Your task to perform on an android device: open chrome and create a bookmark for the current page Image 0: 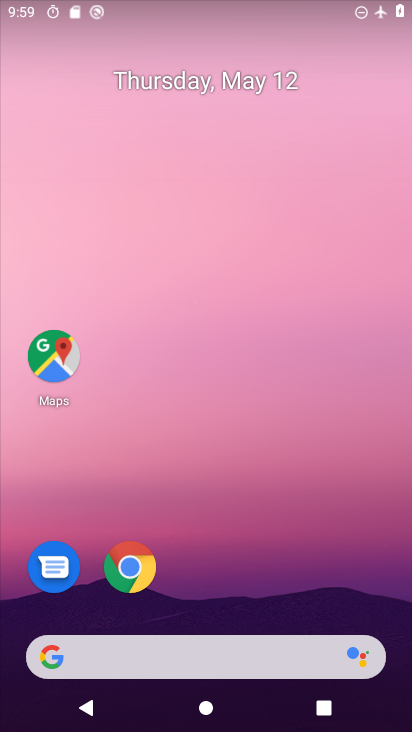
Step 0: drag from (224, 614) to (365, 22)
Your task to perform on an android device: open chrome and create a bookmark for the current page Image 1: 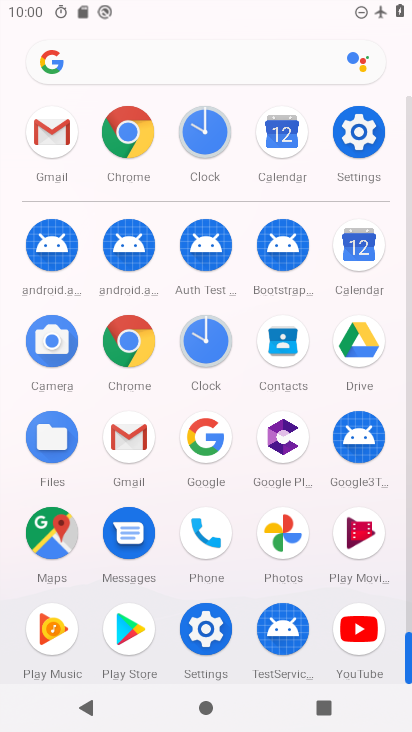
Step 1: click (273, 450)
Your task to perform on an android device: open chrome and create a bookmark for the current page Image 2: 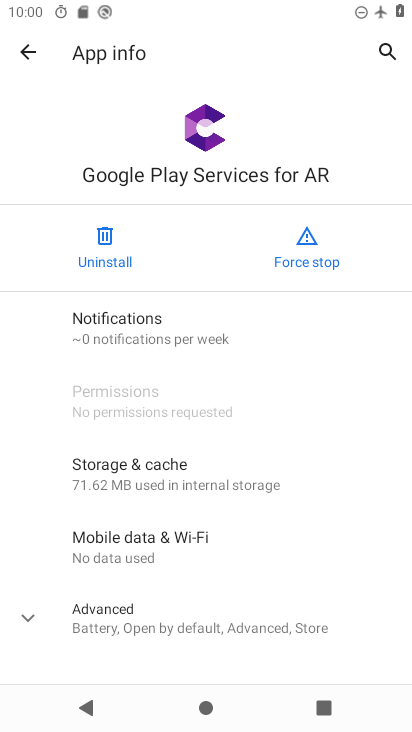
Step 2: click (52, 56)
Your task to perform on an android device: open chrome and create a bookmark for the current page Image 3: 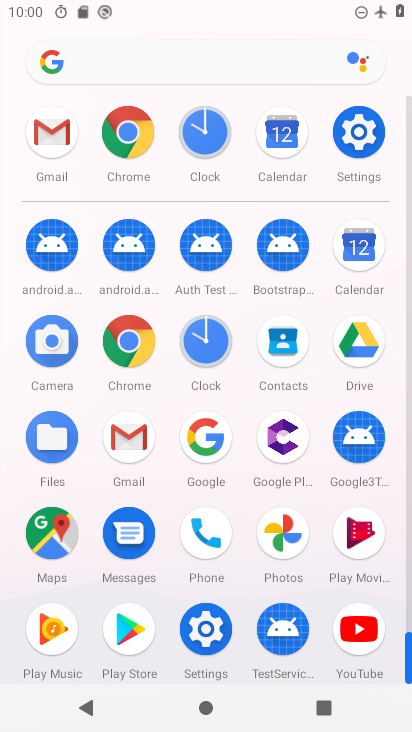
Step 3: click (149, 166)
Your task to perform on an android device: open chrome and create a bookmark for the current page Image 4: 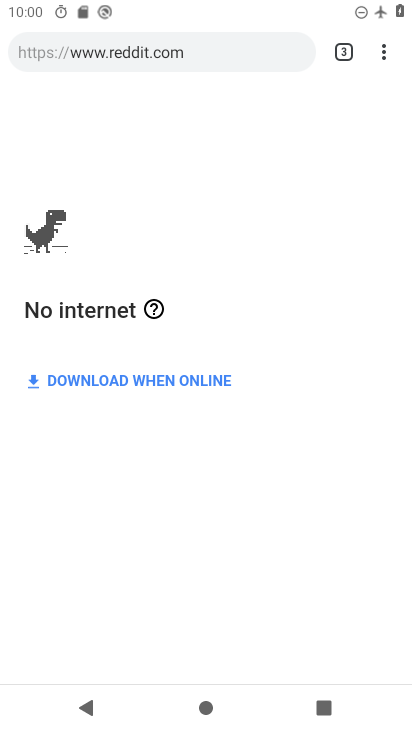
Step 4: click (387, 47)
Your task to perform on an android device: open chrome and create a bookmark for the current page Image 5: 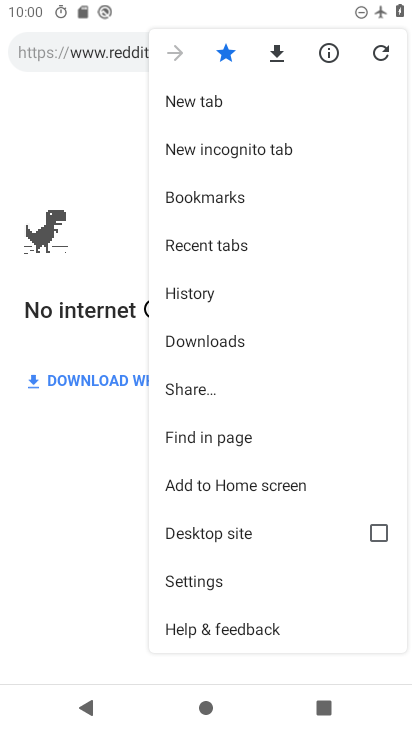
Step 5: drag from (282, 575) to (314, 401)
Your task to perform on an android device: open chrome and create a bookmark for the current page Image 6: 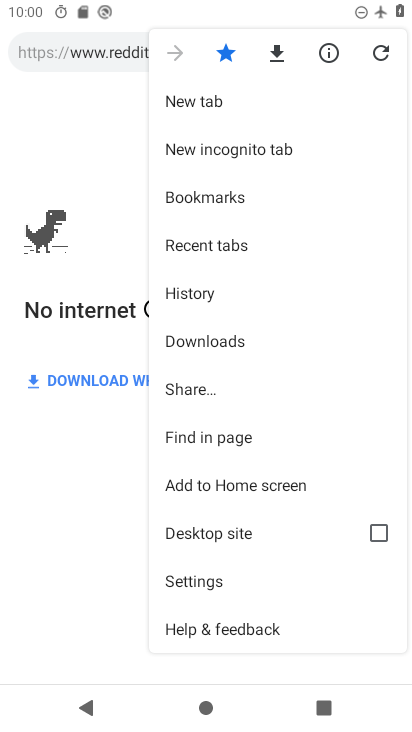
Step 6: click (312, 464)
Your task to perform on an android device: open chrome and create a bookmark for the current page Image 7: 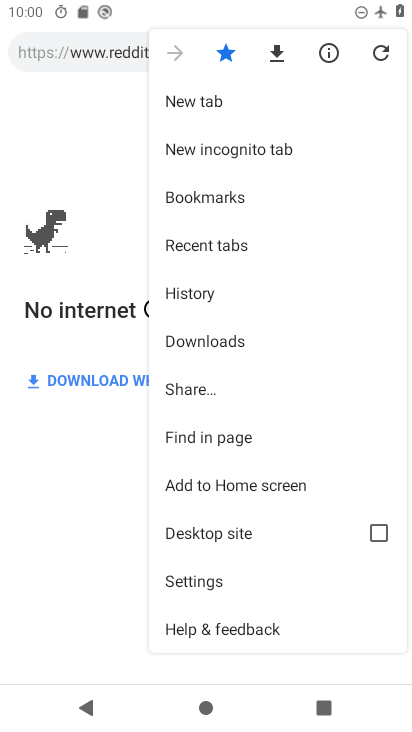
Step 7: click (312, 464)
Your task to perform on an android device: open chrome and create a bookmark for the current page Image 8: 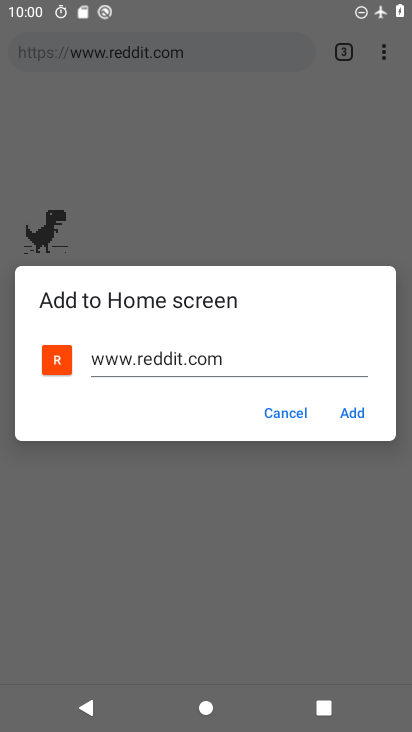
Step 8: click (267, 423)
Your task to perform on an android device: open chrome and create a bookmark for the current page Image 9: 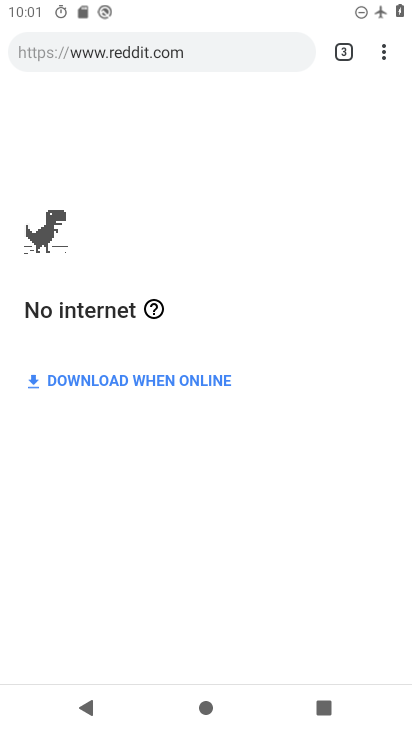
Step 9: click (382, 60)
Your task to perform on an android device: open chrome and create a bookmark for the current page Image 10: 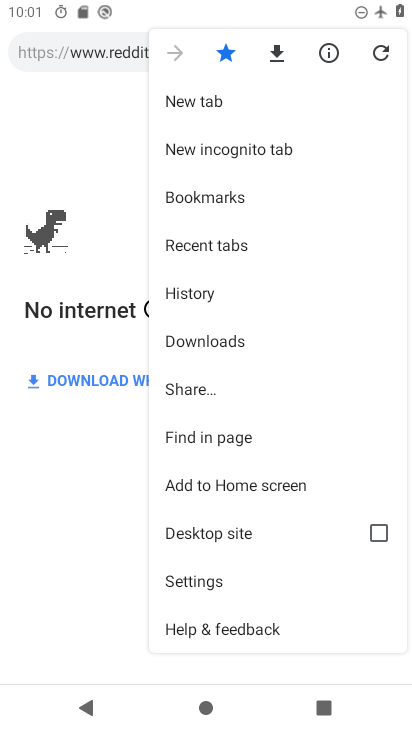
Step 10: click (222, 195)
Your task to perform on an android device: open chrome and create a bookmark for the current page Image 11: 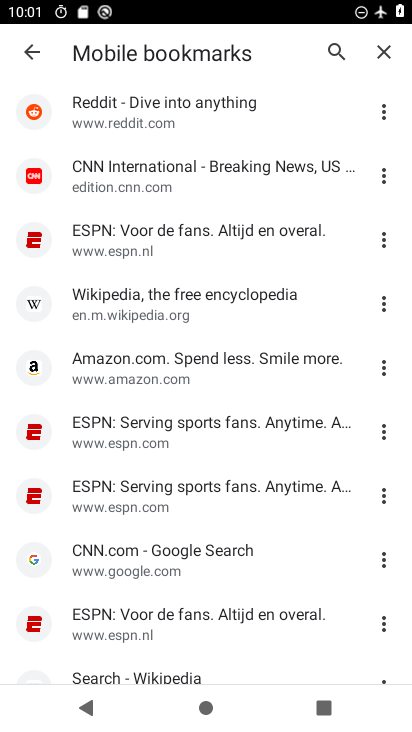
Step 11: task complete